Your task to perform on an android device: change notification settings in the gmail app Image 0: 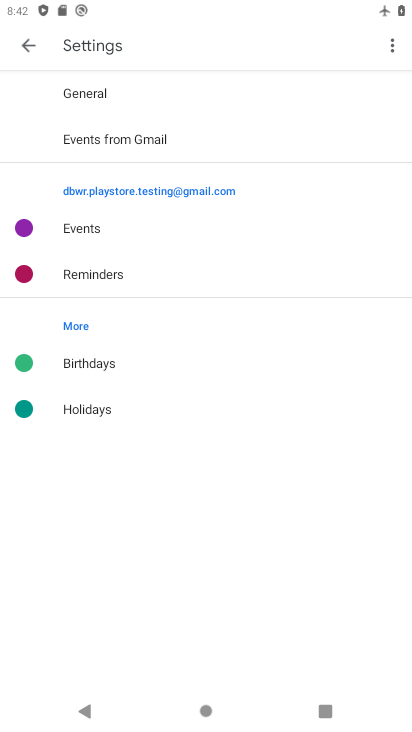
Step 0: press home button
Your task to perform on an android device: change notification settings in the gmail app Image 1: 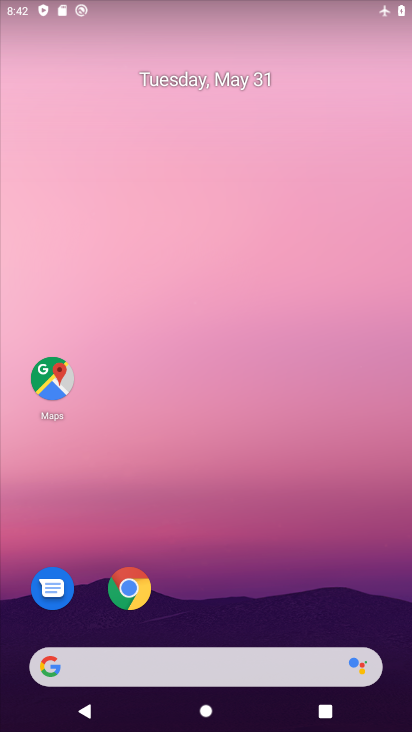
Step 1: drag from (277, 662) to (331, 20)
Your task to perform on an android device: change notification settings in the gmail app Image 2: 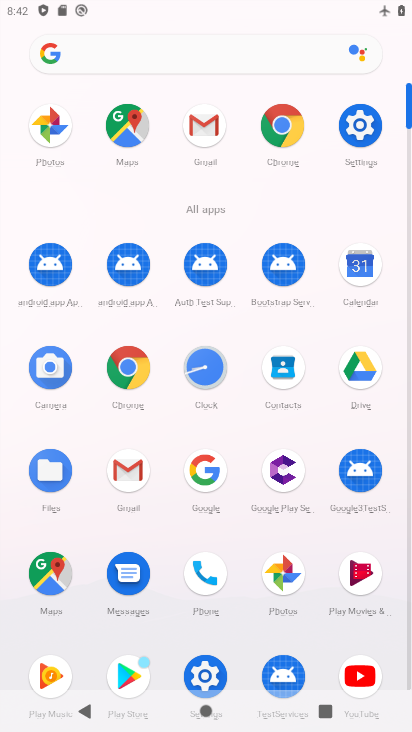
Step 2: click (369, 129)
Your task to perform on an android device: change notification settings in the gmail app Image 3: 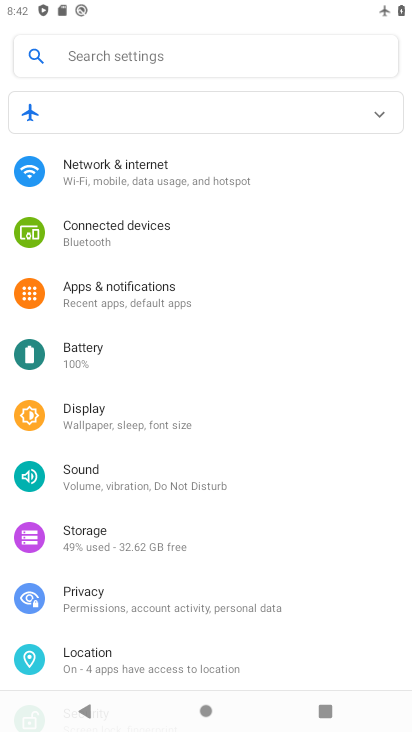
Step 3: press home button
Your task to perform on an android device: change notification settings in the gmail app Image 4: 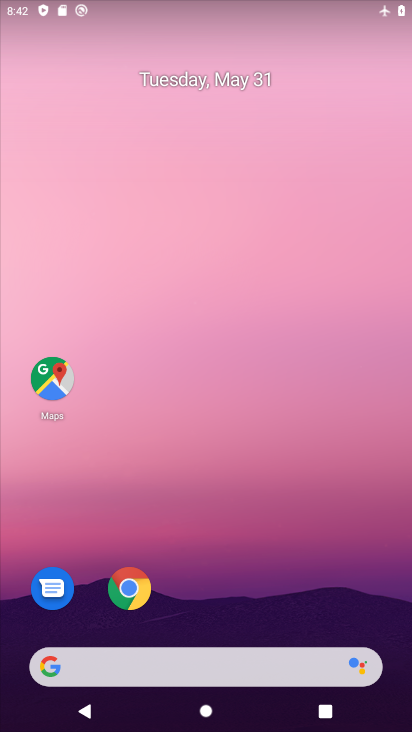
Step 4: drag from (149, 707) to (329, 2)
Your task to perform on an android device: change notification settings in the gmail app Image 5: 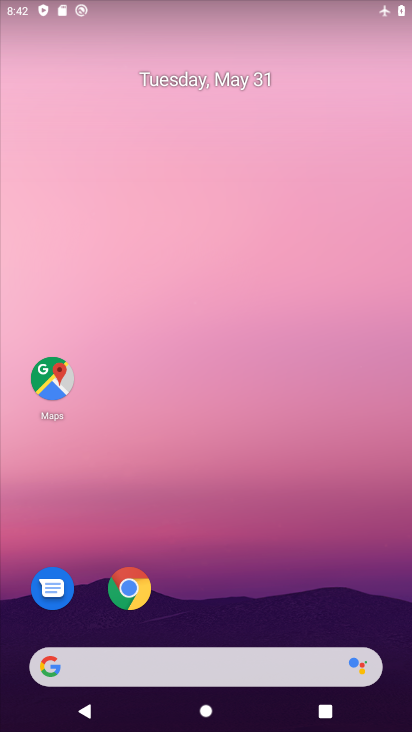
Step 5: drag from (160, 694) to (338, 1)
Your task to perform on an android device: change notification settings in the gmail app Image 6: 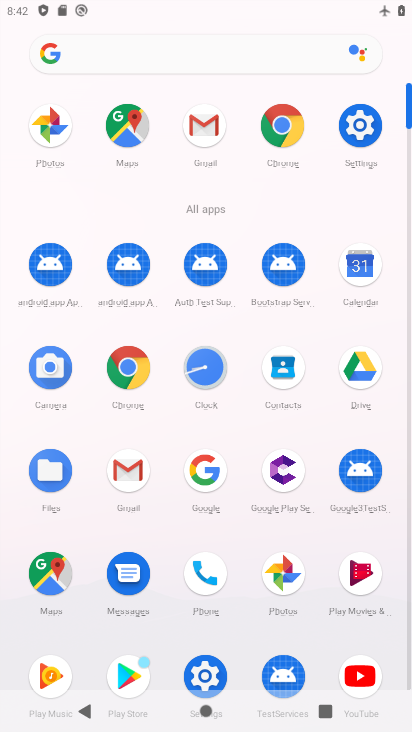
Step 6: click (212, 119)
Your task to perform on an android device: change notification settings in the gmail app Image 7: 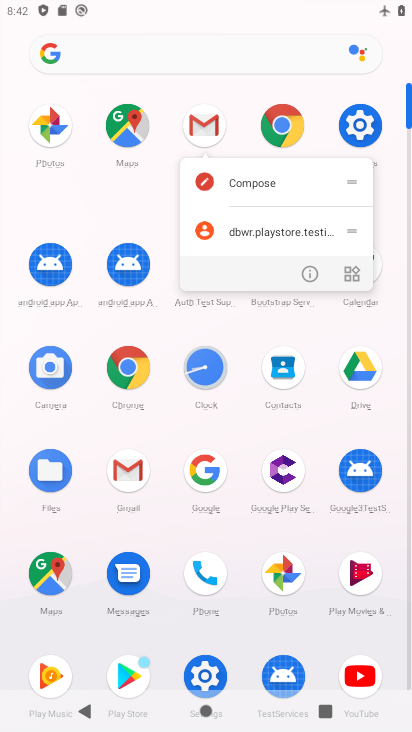
Step 7: click (318, 278)
Your task to perform on an android device: change notification settings in the gmail app Image 8: 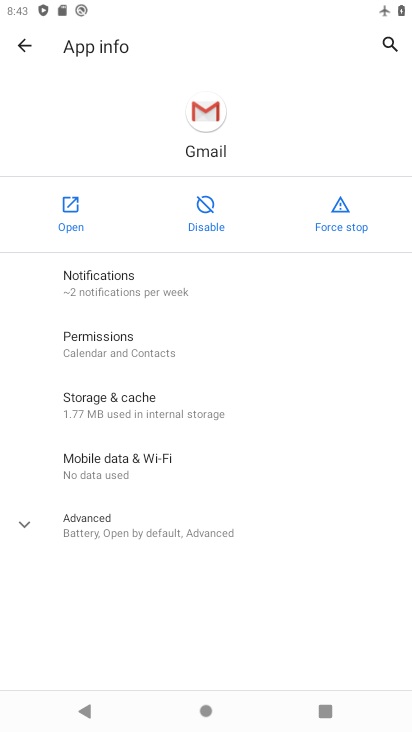
Step 8: click (84, 290)
Your task to perform on an android device: change notification settings in the gmail app Image 9: 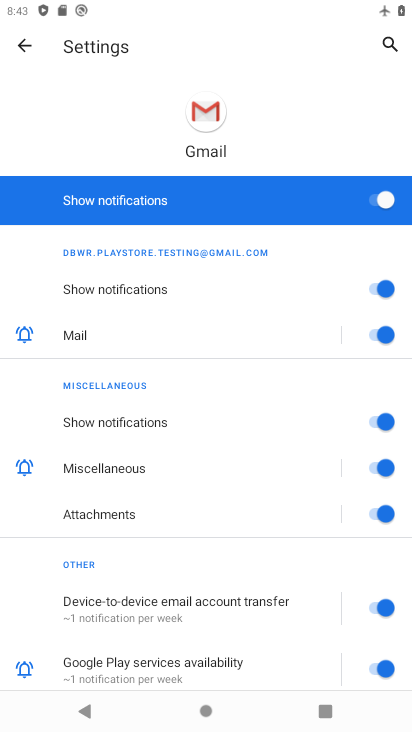
Step 9: click (393, 205)
Your task to perform on an android device: change notification settings in the gmail app Image 10: 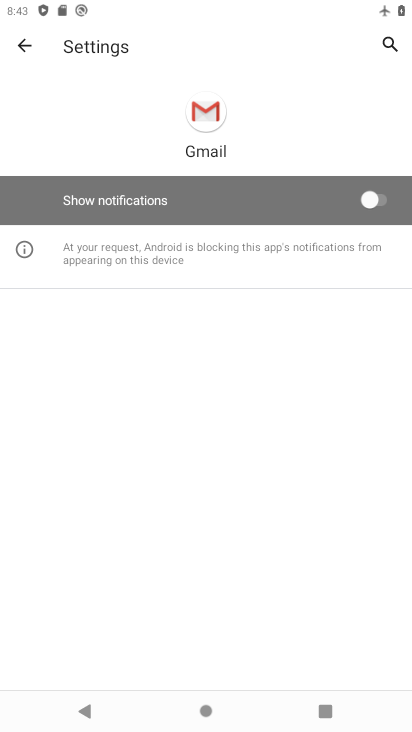
Step 10: task complete